Your task to perform on an android device: Go to battery settings Image 0: 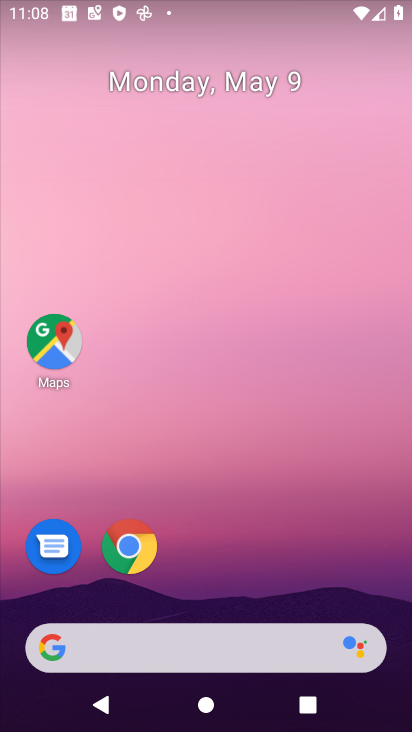
Step 0: drag from (262, 695) to (216, 2)
Your task to perform on an android device: Go to battery settings Image 1: 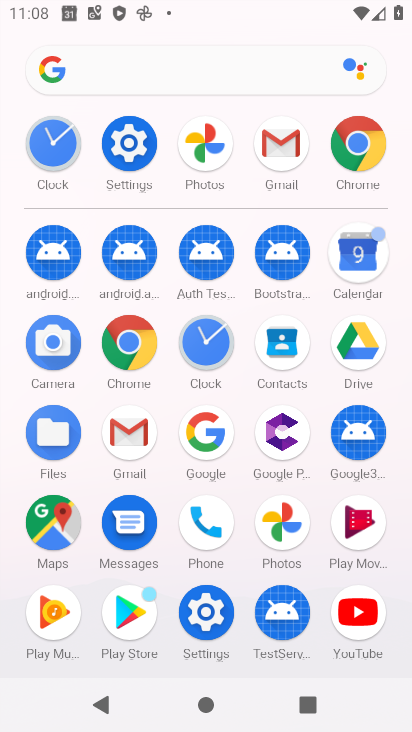
Step 1: click (120, 132)
Your task to perform on an android device: Go to battery settings Image 2: 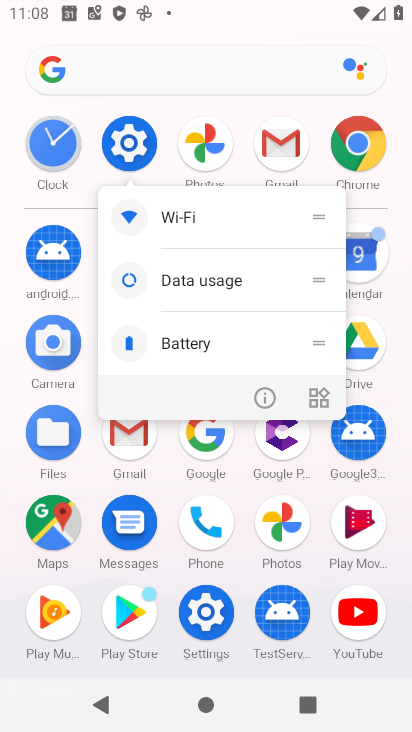
Step 2: click (117, 128)
Your task to perform on an android device: Go to battery settings Image 3: 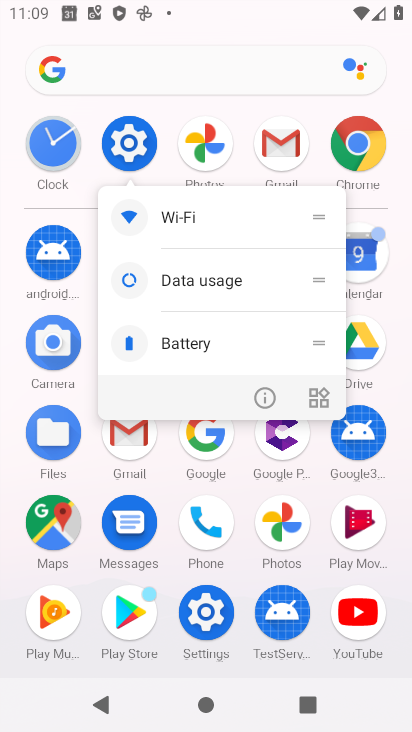
Step 3: click (117, 128)
Your task to perform on an android device: Go to battery settings Image 4: 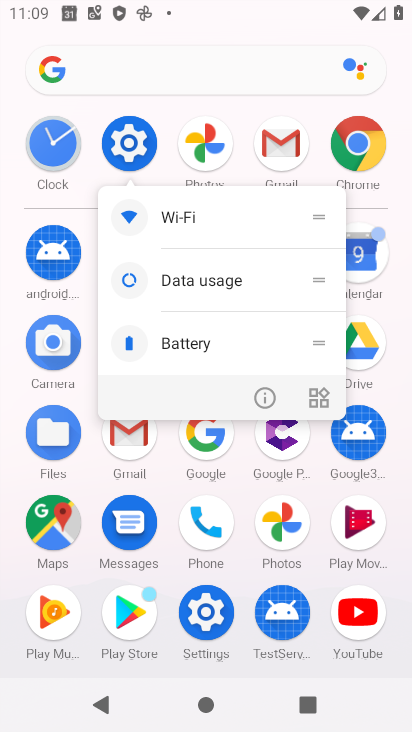
Step 4: click (117, 128)
Your task to perform on an android device: Go to battery settings Image 5: 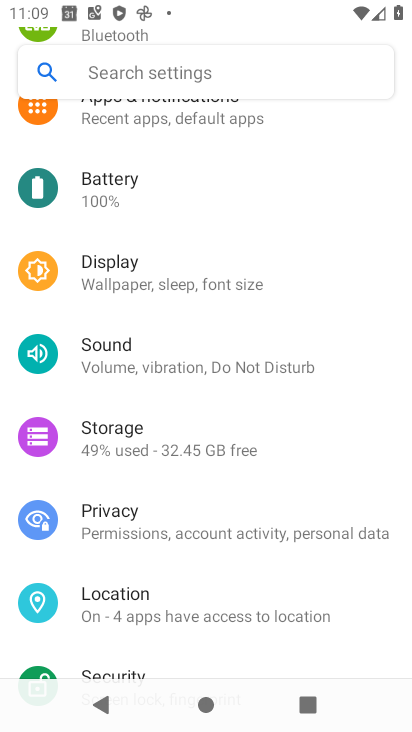
Step 5: click (122, 144)
Your task to perform on an android device: Go to battery settings Image 6: 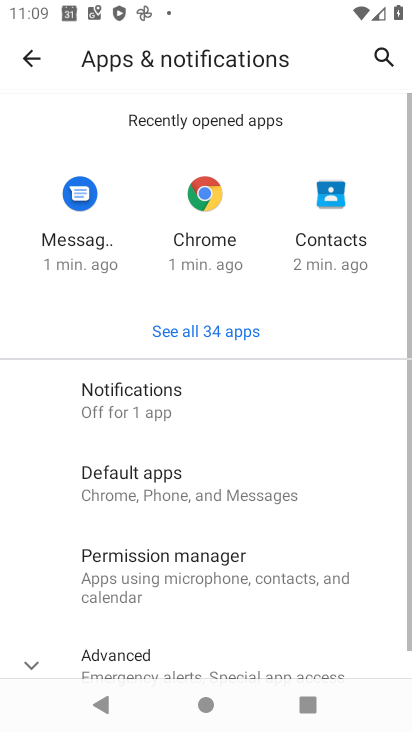
Step 6: press back button
Your task to perform on an android device: Go to battery settings Image 7: 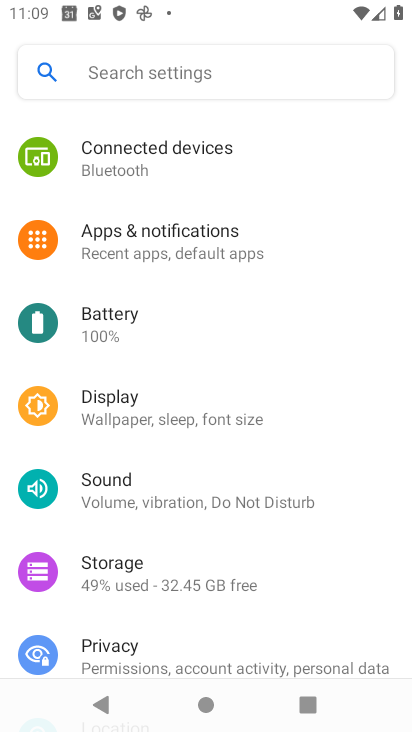
Step 7: click (142, 319)
Your task to perform on an android device: Go to battery settings Image 8: 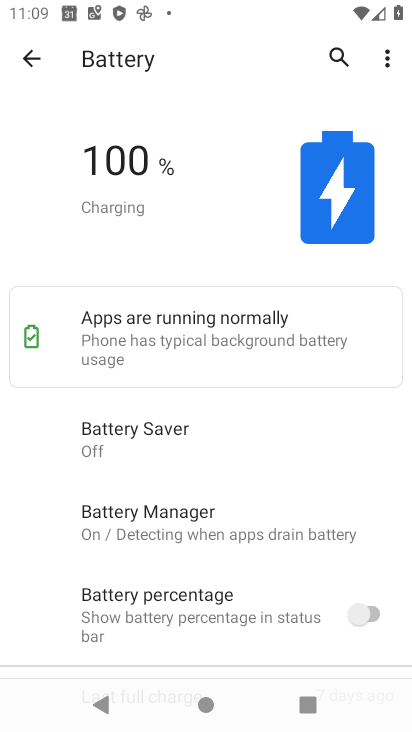
Step 8: task complete